Your task to perform on an android device: toggle show notifications on the lock screen Image 0: 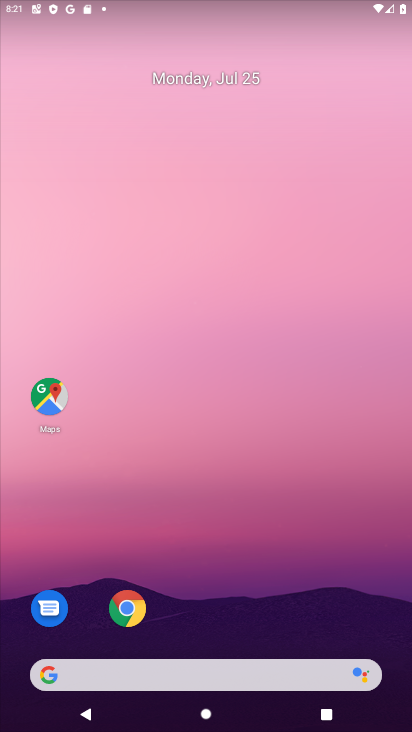
Step 0: drag from (254, 655) to (269, 243)
Your task to perform on an android device: toggle show notifications on the lock screen Image 1: 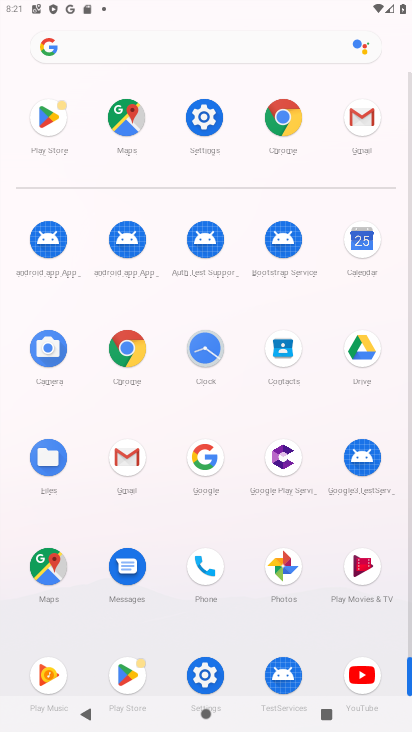
Step 1: click (200, 126)
Your task to perform on an android device: toggle show notifications on the lock screen Image 2: 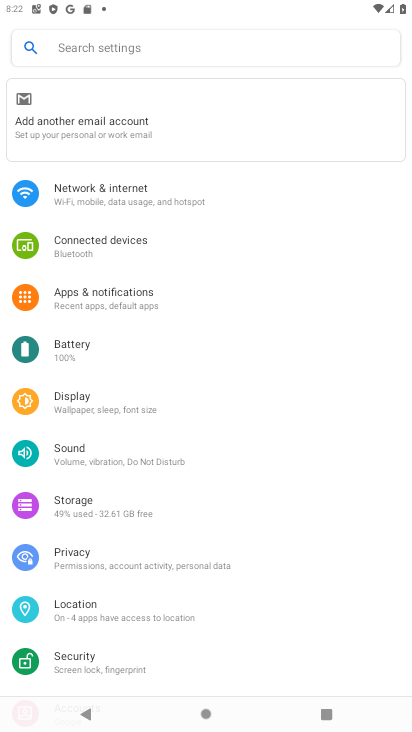
Step 2: click (143, 309)
Your task to perform on an android device: toggle show notifications on the lock screen Image 3: 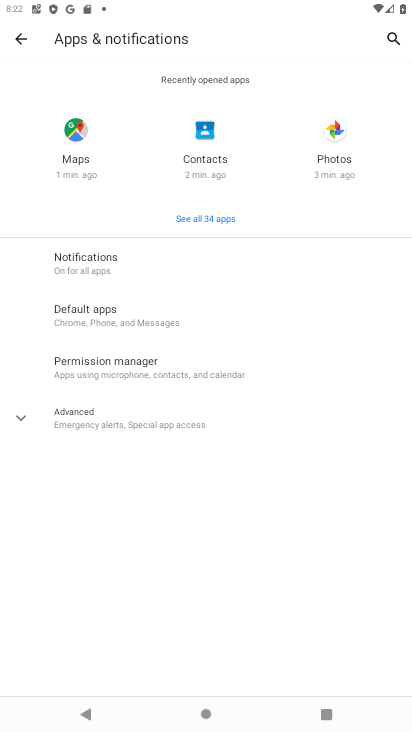
Step 3: click (166, 268)
Your task to perform on an android device: toggle show notifications on the lock screen Image 4: 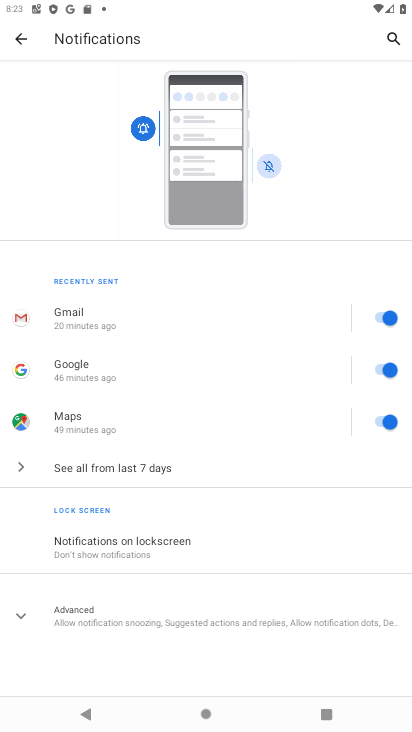
Step 4: click (168, 552)
Your task to perform on an android device: toggle show notifications on the lock screen Image 5: 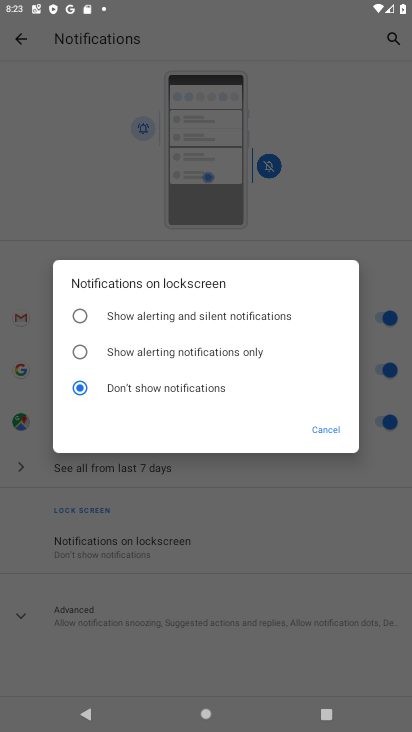
Step 5: click (189, 312)
Your task to perform on an android device: toggle show notifications on the lock screen Image 6: 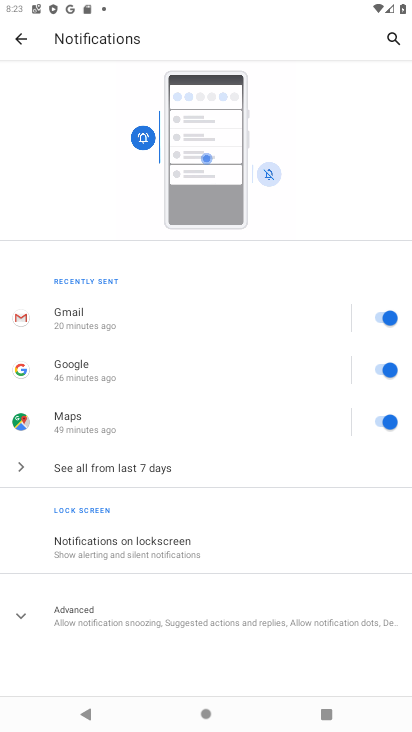
Step 6: task complete